Your task to perform on an android device: What is the recent news? Image 0: 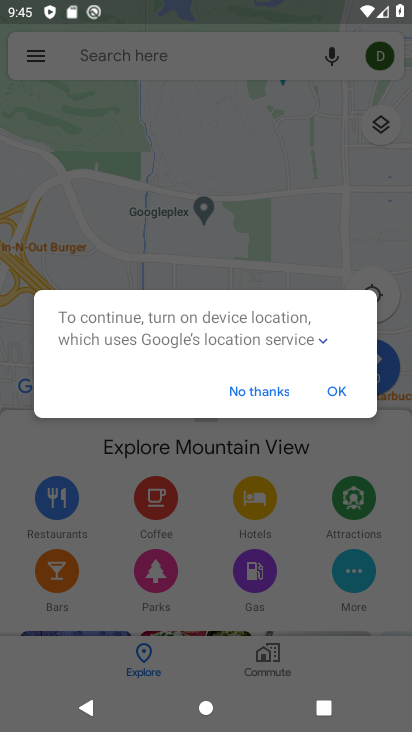
Step 0: press back button
Your task to perform on an android device: What is the recent news? Image 1: 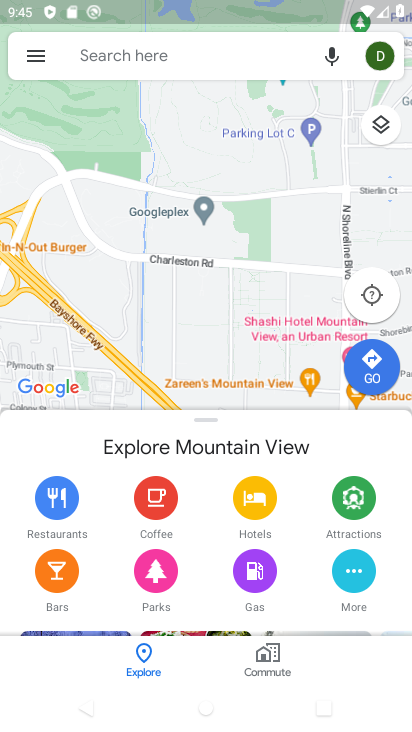
Step 1: press home button
Your task to perform on an android device: What is the recent news? Image 2: 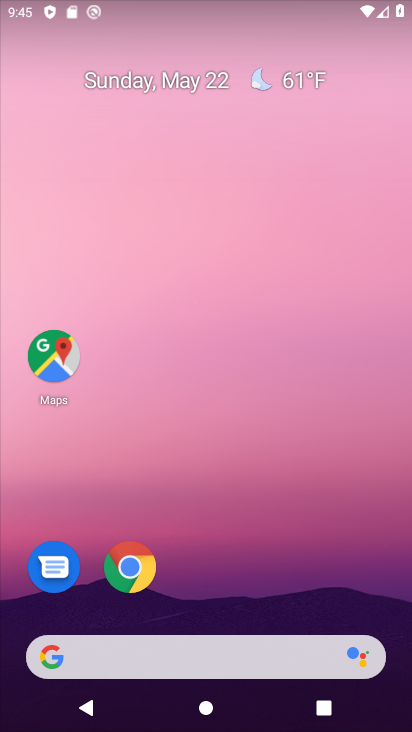
Step 2: click (276, 645)
Your task to perform on an android device: What is the recent news? Image 3: 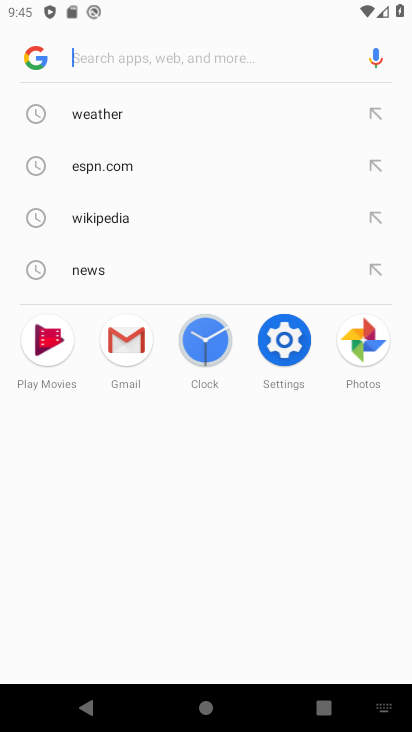
Step 3: click (110, 273)
Your task to perform on an android device: What is the recent news? Image 4: 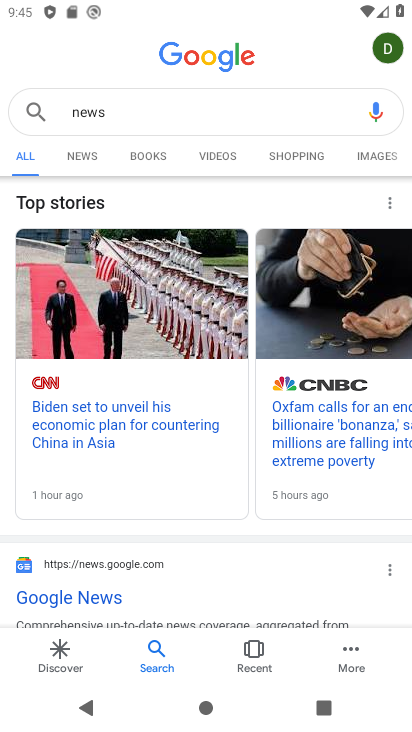
Step 4: task complete